Your task to perform on an android device: What's the weather going to be this weekend? Image 0: 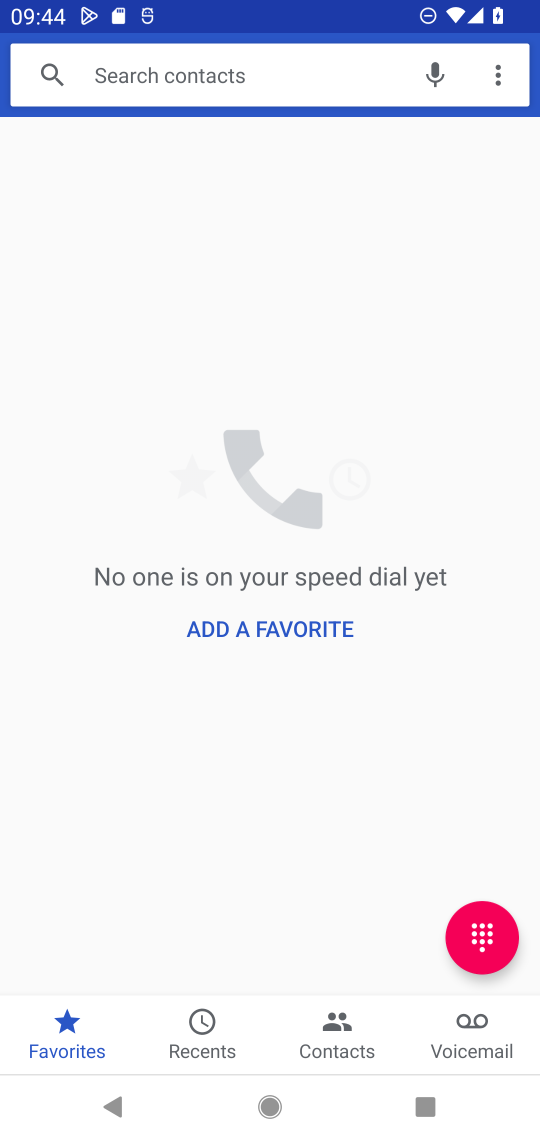
Step 0: press home button
Your task to perform on an android device: What's the weather going to be this weekend? Image 1: 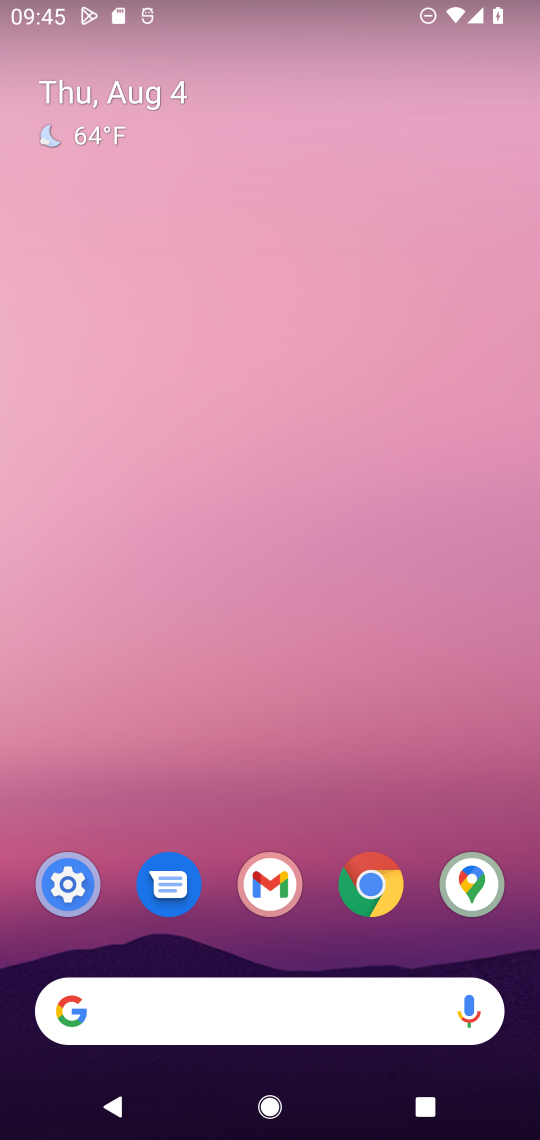
Step 1: click (165, 1027)
Your task to perform on an android device: What's the weather going to be this weekend? Image 2: 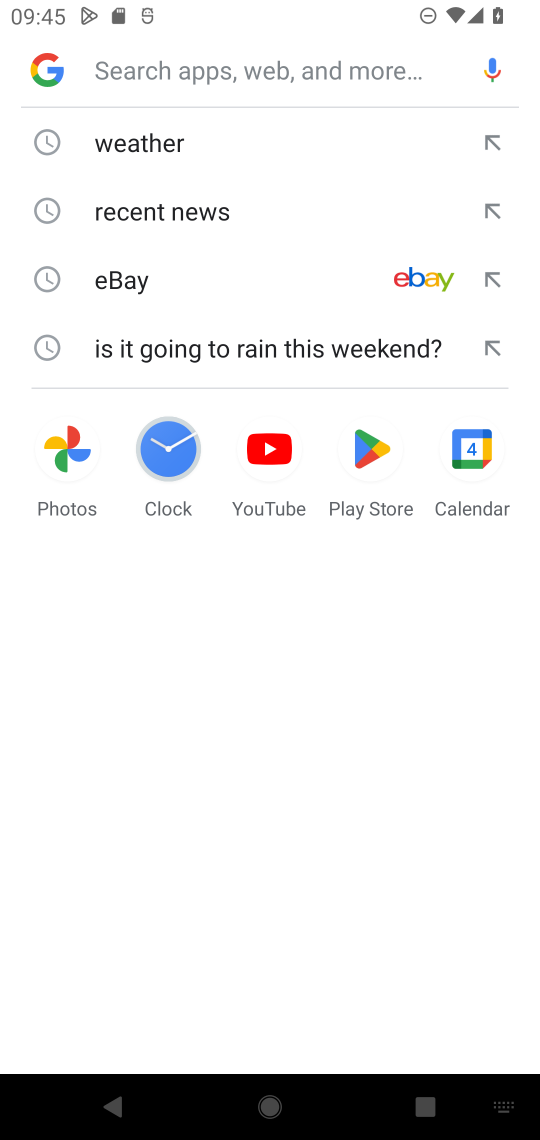
Step 2: type "What's the weather going to be this weekend?"
Your task to perform on an android device: What's the weather going to be this weekend? Image 3: 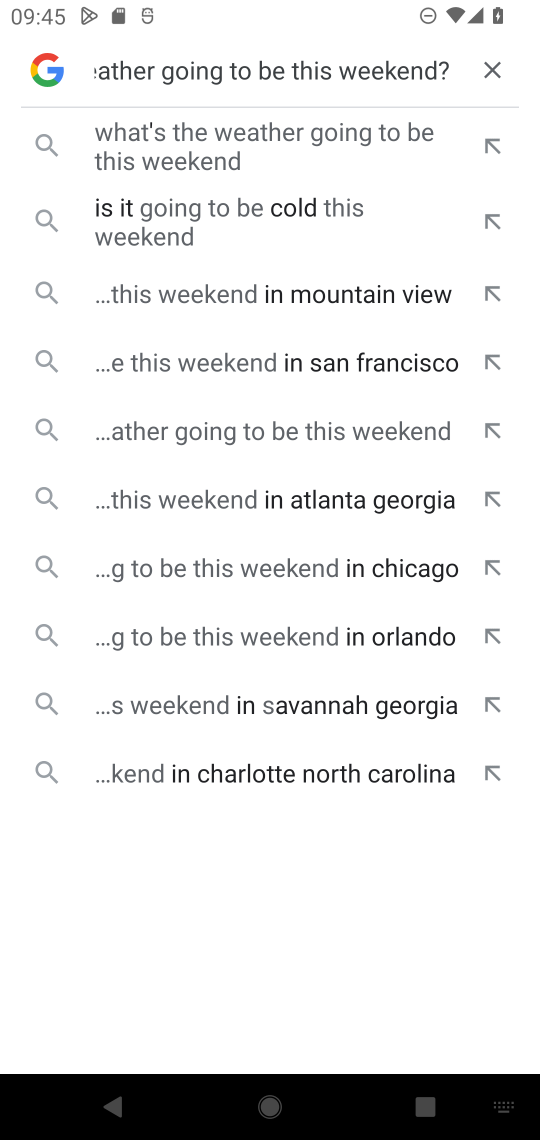
Step 3: type ""
Your task to perform on an android device: What's the weather going to be this weekend? Image 4: 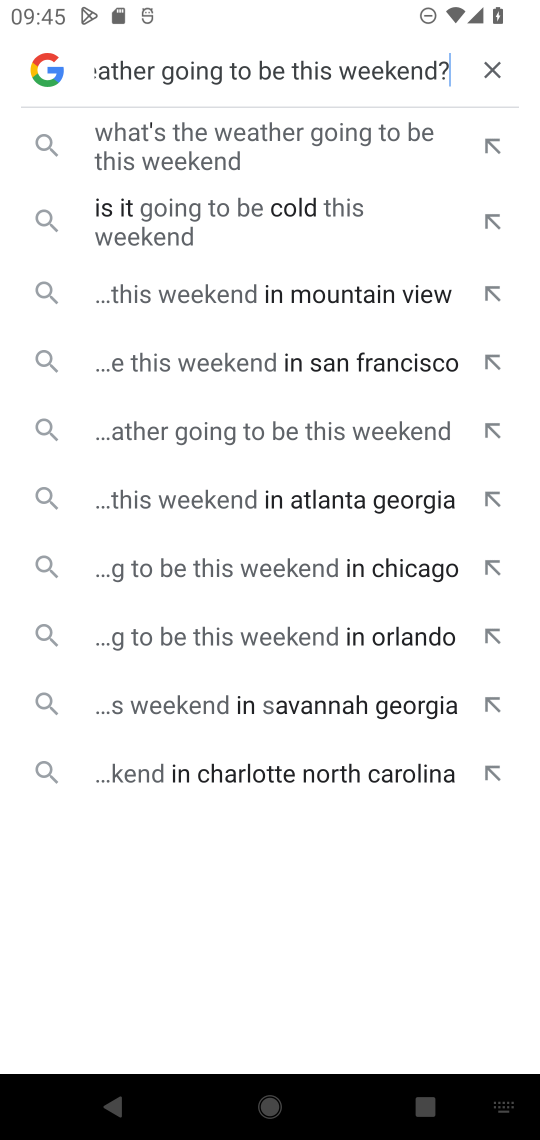
Step 4: press enter
Your task to perform on an android device: What's the weather going to be this weekend? Image 5: 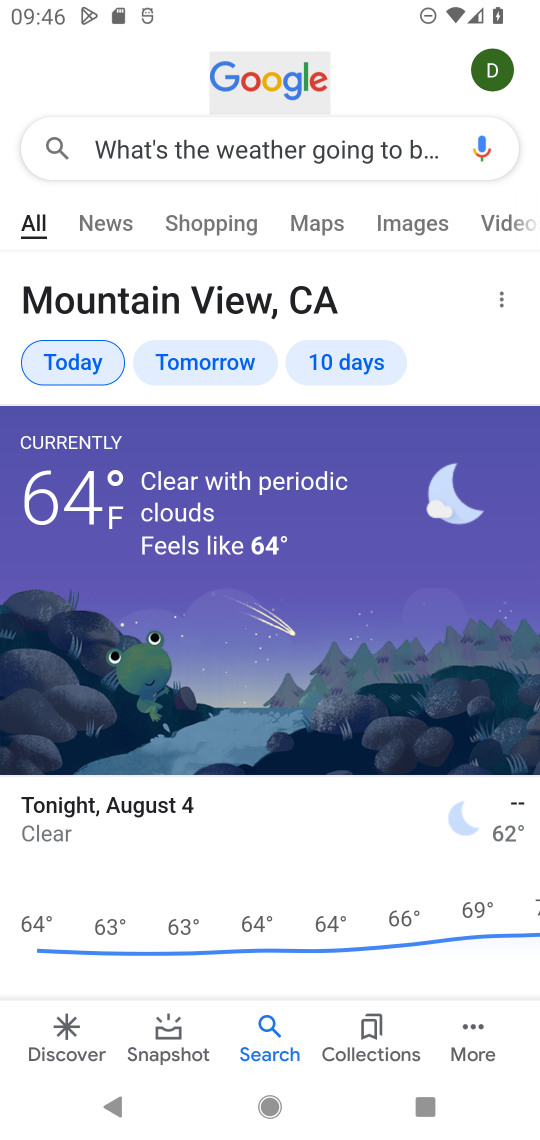
Step 5: task complete